Your task to perform on an android device: open a new tab in the chrome app Image 0: 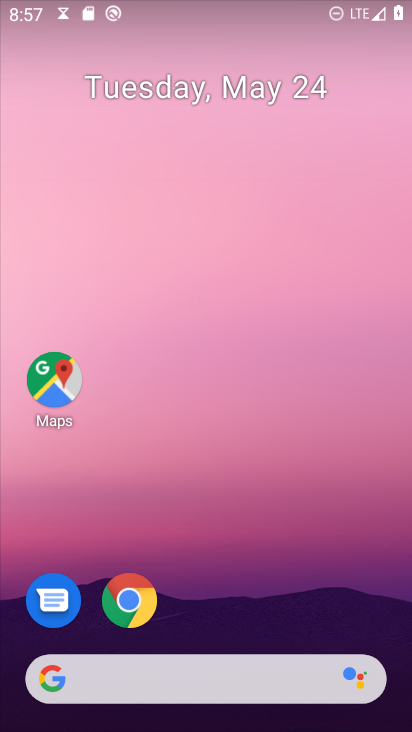
Step 0: click (118, 599)
Your task to perform on an android device: open a new tab in the chrome app Image 1: 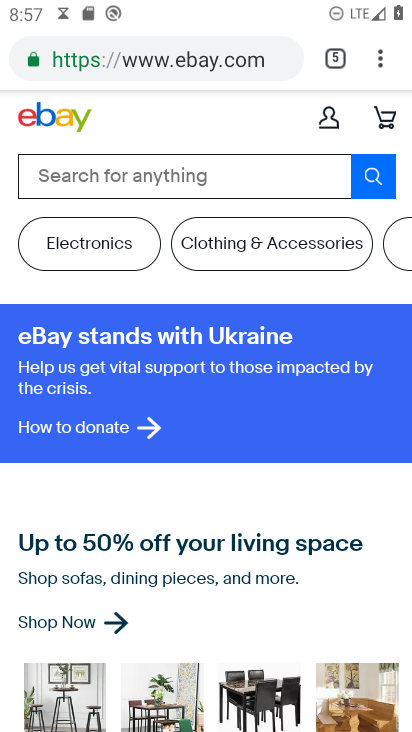
Step 1: click (338, 55)
Your task to perform on an android device: open a new tab in the chrome app Image 2: 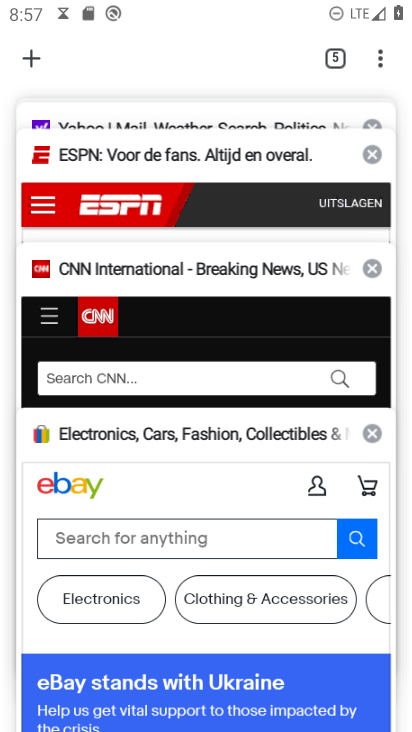
Step 2: click (39, 58)
Your task to perform on an android device: open a new tab in the chrome app Image 3: 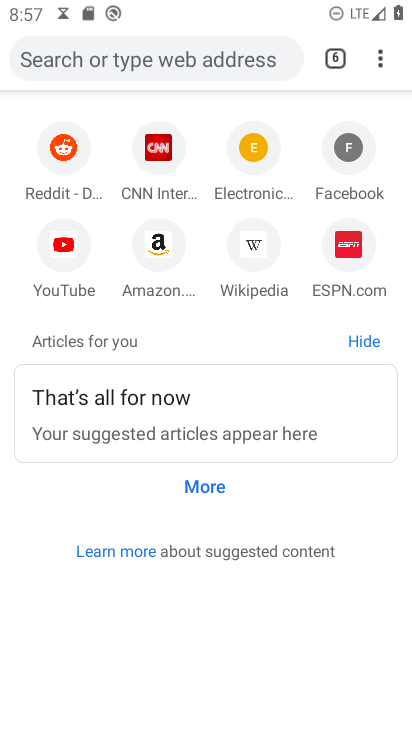
Step 3: task complete